Your task to perform on an android device: turn notification dots on Image 0: 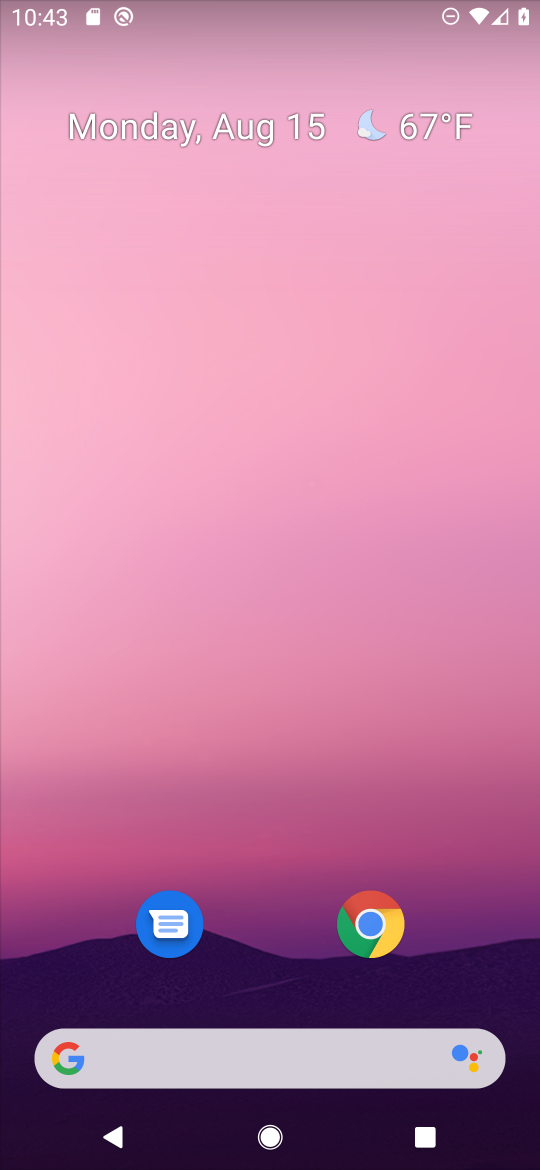
Step 0: drag from (513, 1006) to (454, 100)
Your task to perform on an android device: turn notification dots on Image 1: 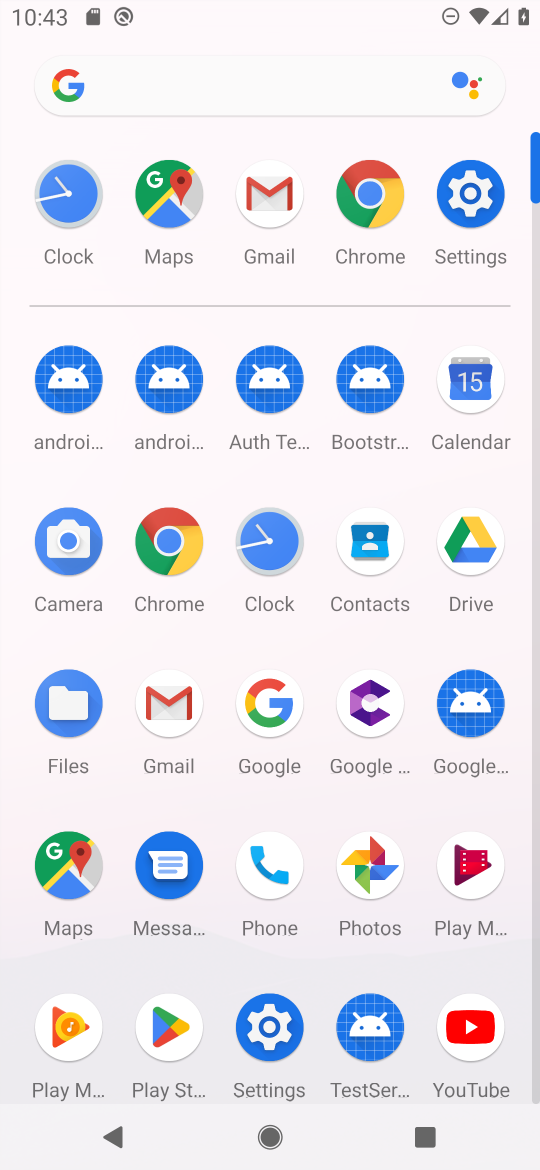
Step 1: click (273, 1030)
Your task to perform on an android device: turn notification dots on Image 2: 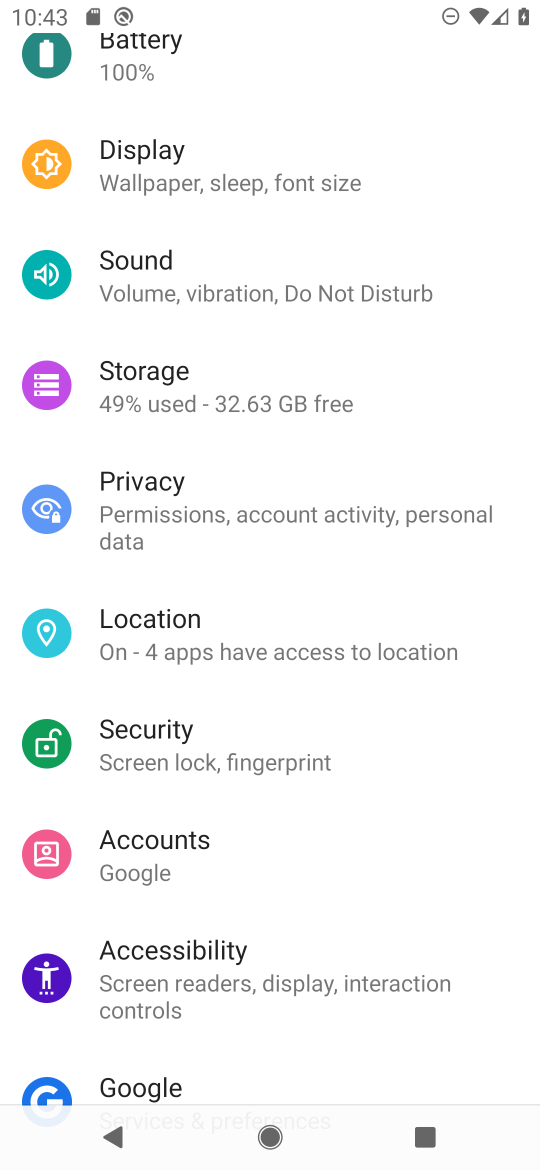
Step 2: drag from (422, 193) to (466, 645)
Your task to perform on an android device: turn notification dots on Image 3: 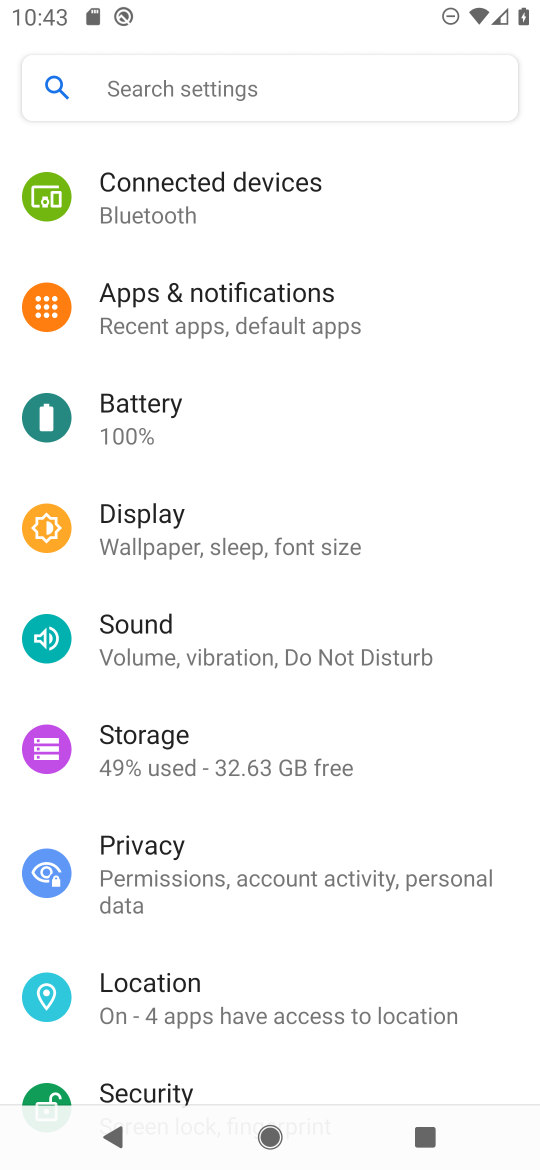
Step 3: drag from (435, 361) to (438, 667)
Your task to perform on an android device: turn notification dots on Image 4: 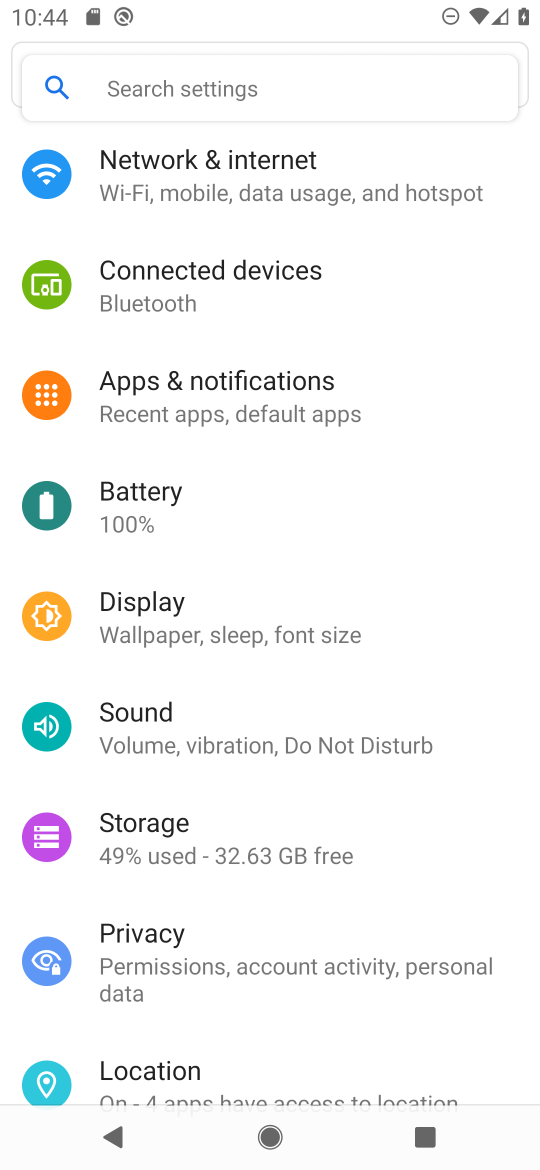
Step 4: click (183, 388)
Your task to perform on an android device: turn notification dots on Image 5: 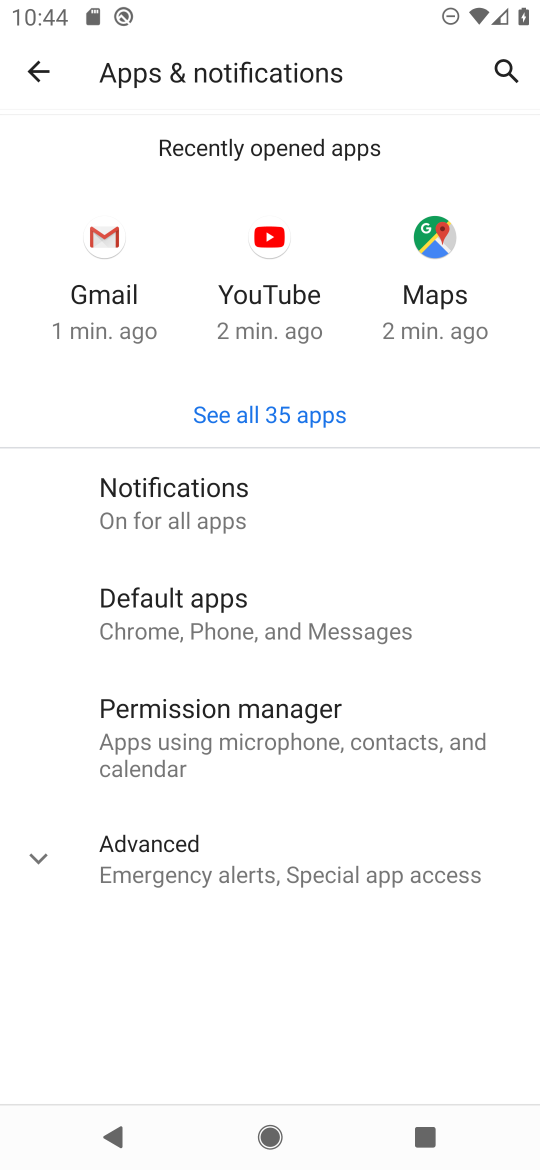
Step 5: click (164, 506)
Your task to perform on an android device: turn notification dots on Image 6: 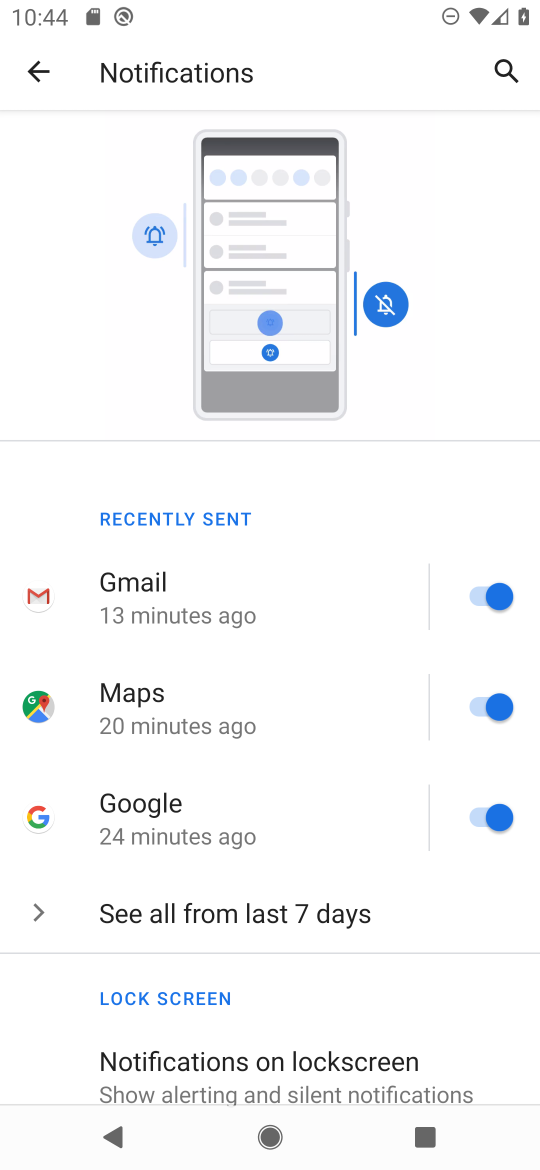
Step 6: drag from (334, 943) to (352, 411)
Your task to perform on an android device: turn notification dots on Image 7: 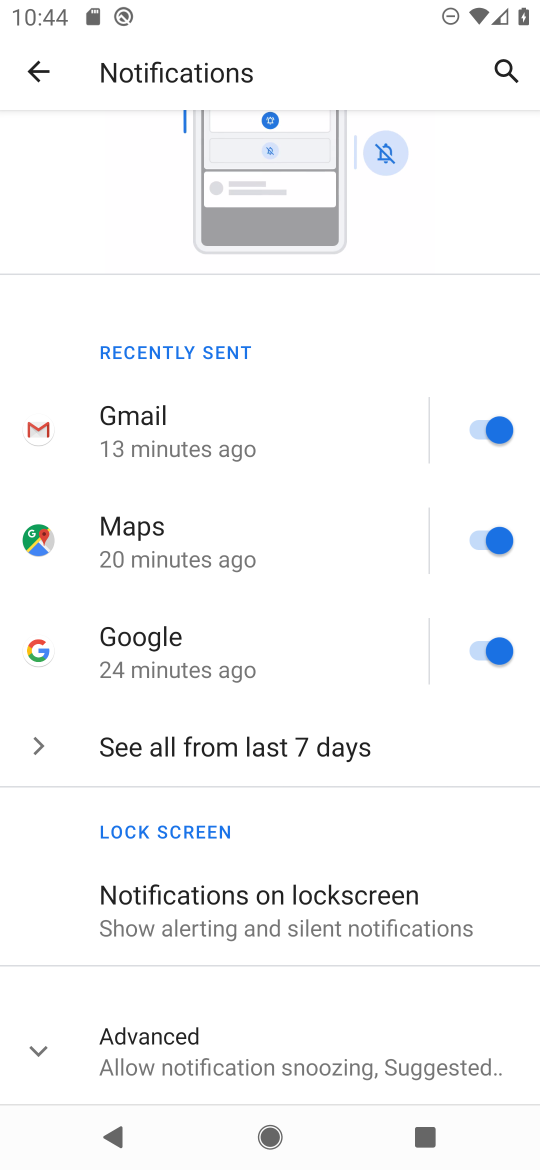
Step 7: click (34, 1048)
Your task to perform on an android device: turn notification dots on Image 8: 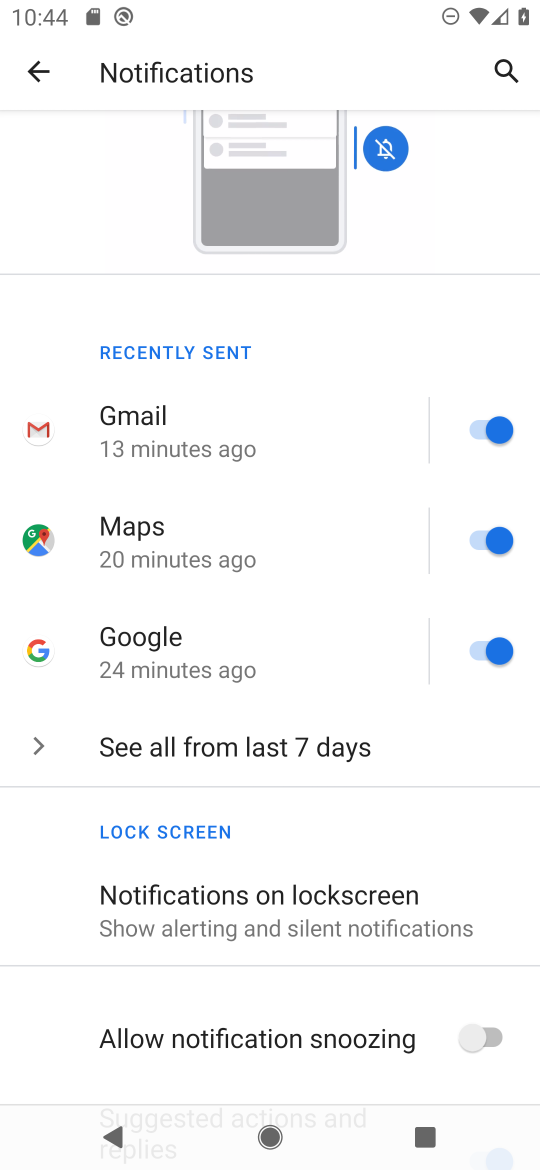
Step 8: drag from (421, 1002) to (393, 473)
Your task to perform on an android device: turn notification dots on Image 9: 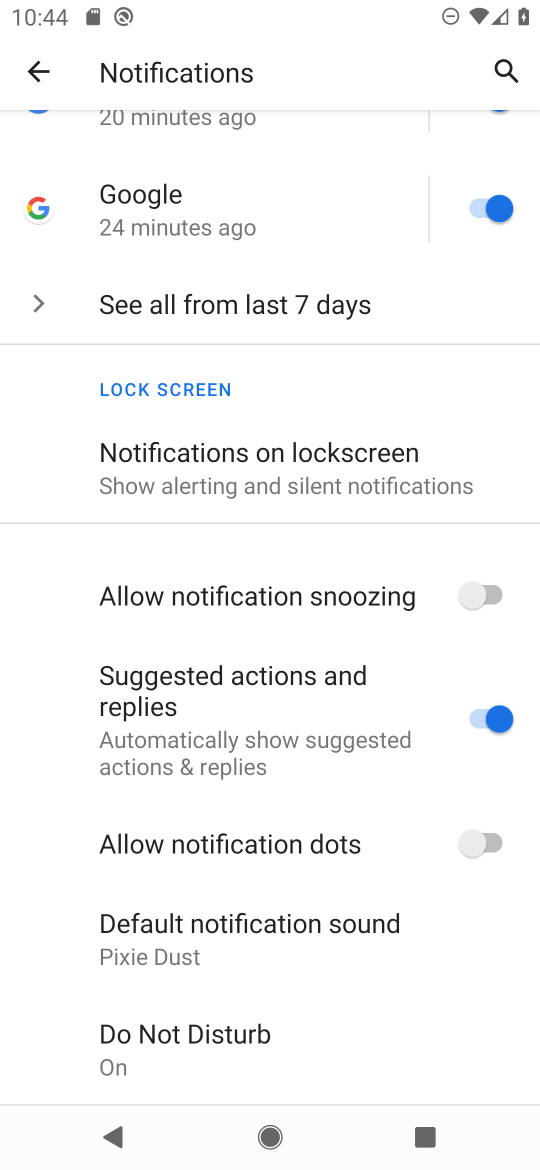
Step 9: click (497, 845)
Your task to perform on an android device: turn notification dots on Image 10: 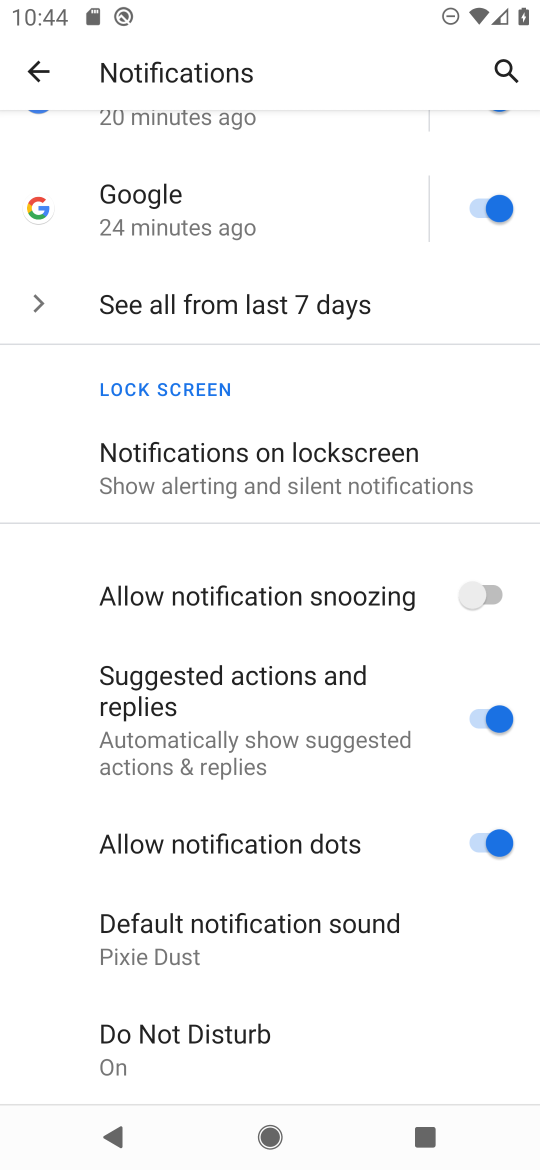
Step 10: task complete